Your task to perform on an android device: Go to Wikipedia Image 0: 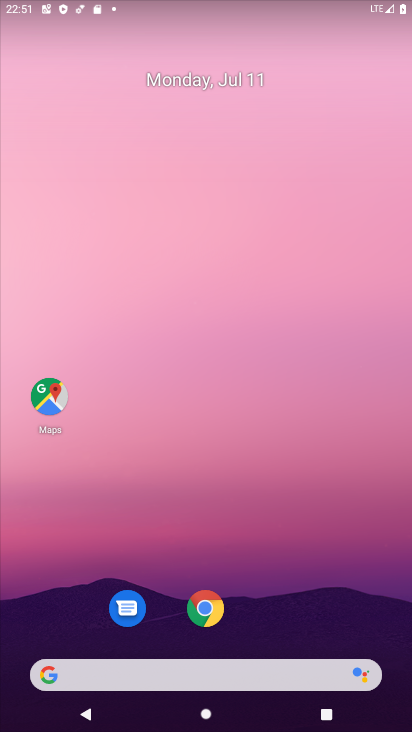
Step 0: click (102, 681)
Your task to perform on an android device: Go to Wikipedia Image 1: 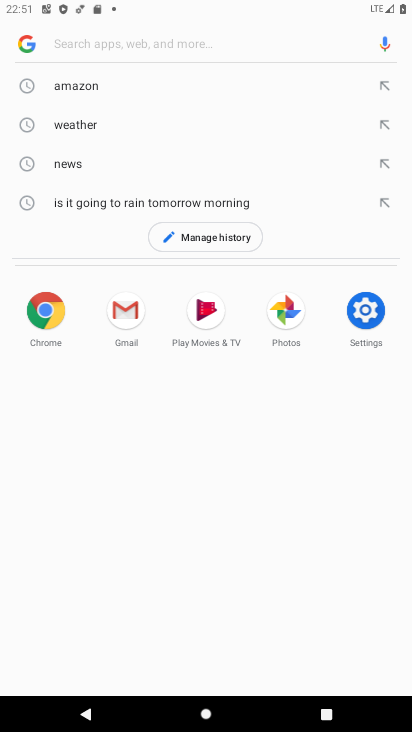
Step 1: type "Wikipedia"
Your task to perform on an android device: Go to Wikipedia Image 2: 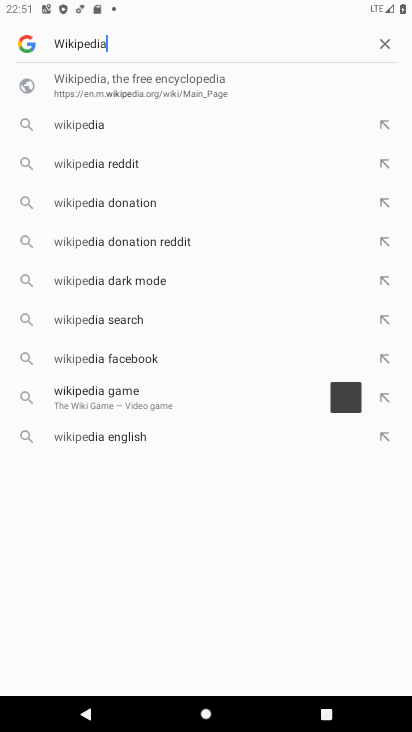
Step 2: type ""
Your task to perform on an android device: Go to Wikipedia Image 3: 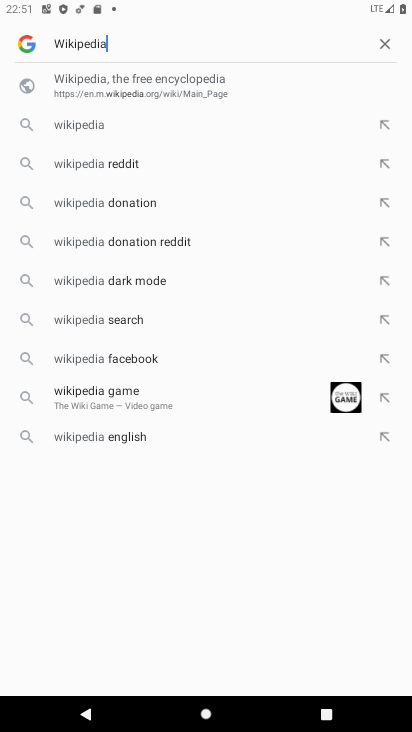
Step 3: click (217, 84)
Your task to perform on an android device: Go to Wikipedia Image 4: 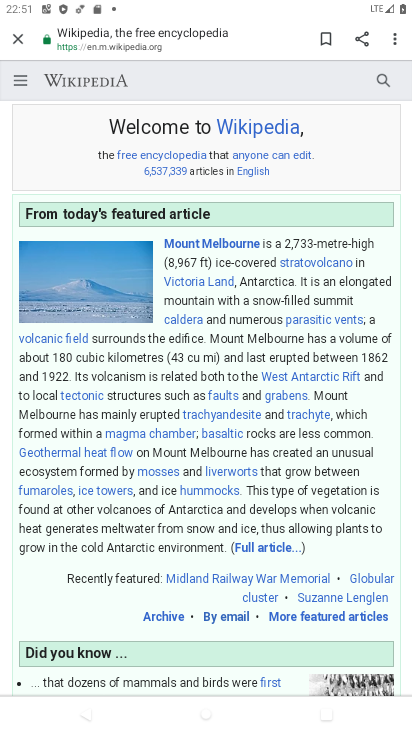
Step 4: task complete